Your task to perform on an android device: Open calendar and show me the third week of next month Image 0: 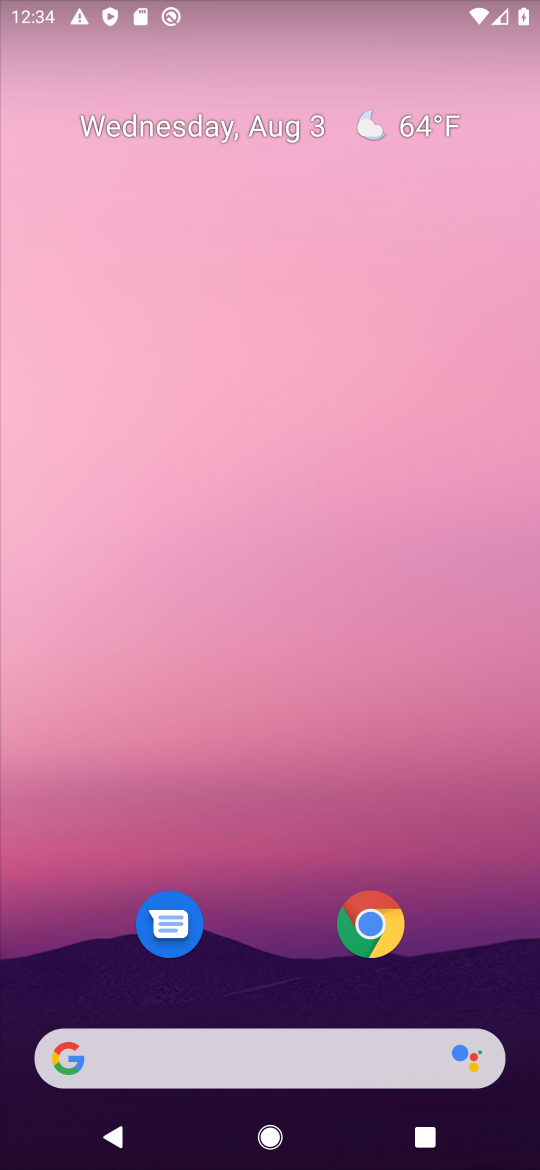
Step 0: drag from (256, 585) to (273, 107)
Your task to perform on an android device: Open calendar and show me the third week of next month Image 1: 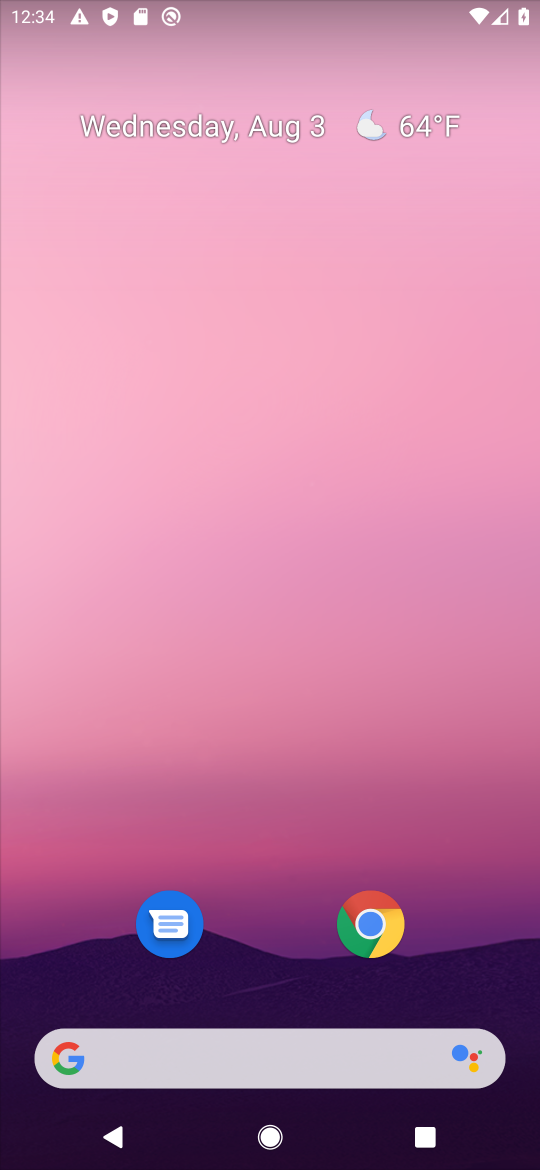
Step 1: drag from (336, 904) to (398, 14)
Your task to perform on an android device: Open calendar and show me the third week of next month Image 2: 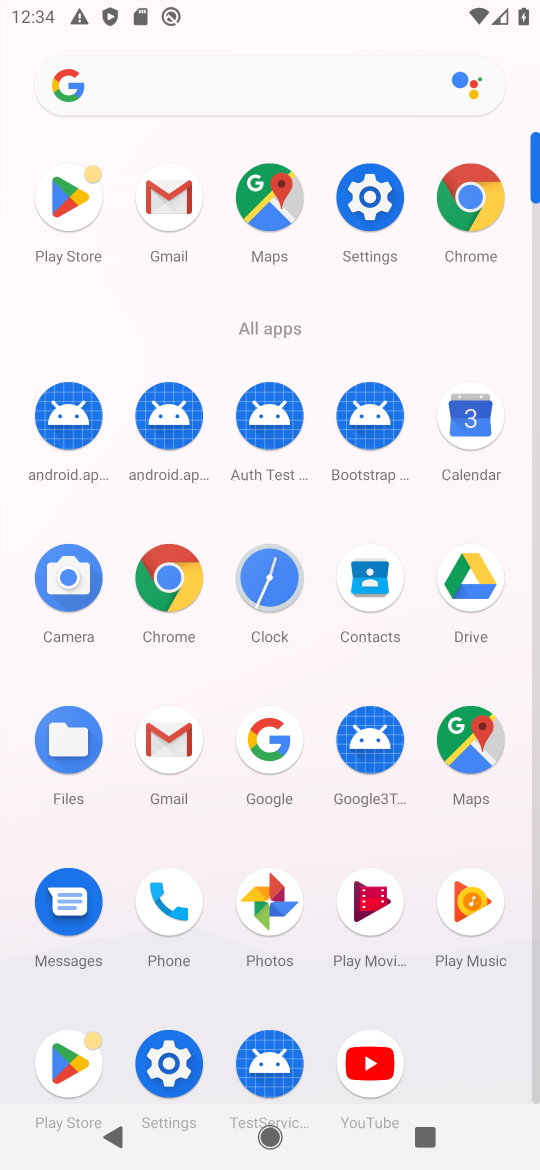
Step 2: click (476, 439)
Your task to perform on an android device: Open calendar and show me the third week of next month Image 3: 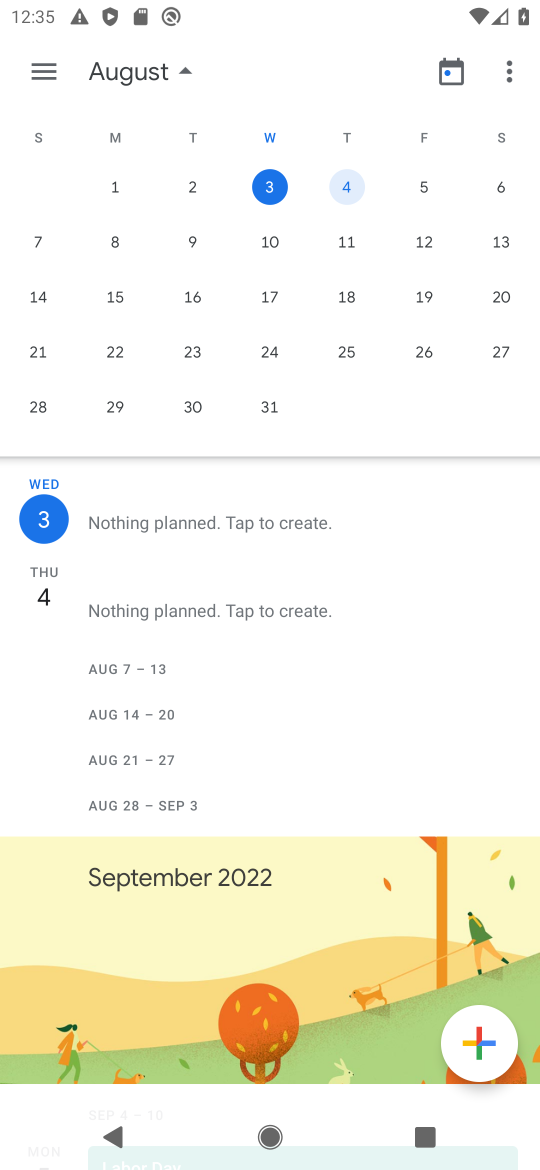
Step 3: click (35, 82)
Your task to perform on an android device: Open calendar and show me the third week of next month Image 4: 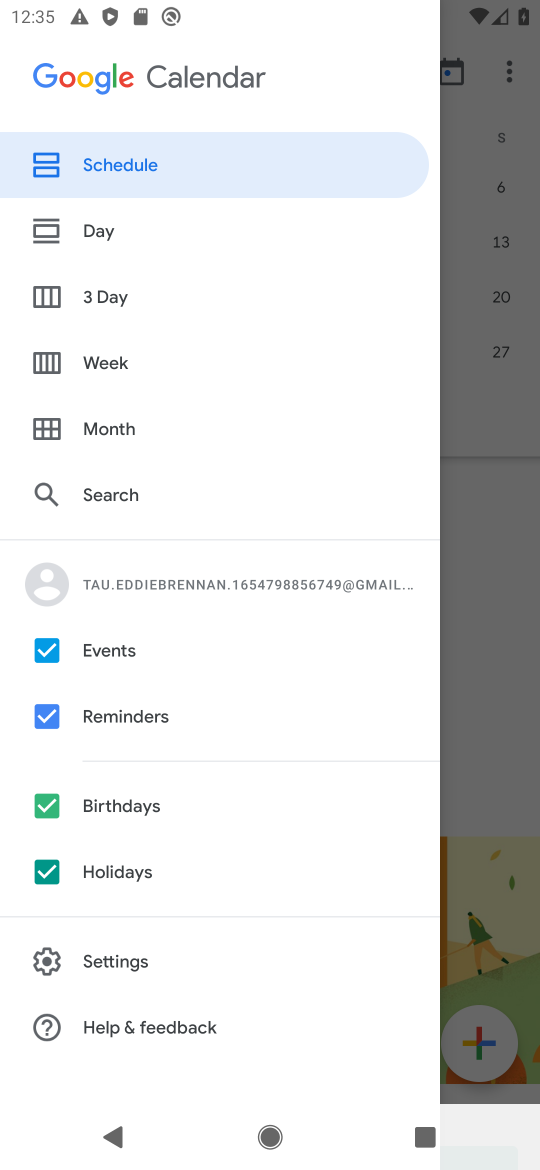
Step 4: click (479, 257)
Your task to perform on an android device: Open calendar and show me the third week of next month Image 5: 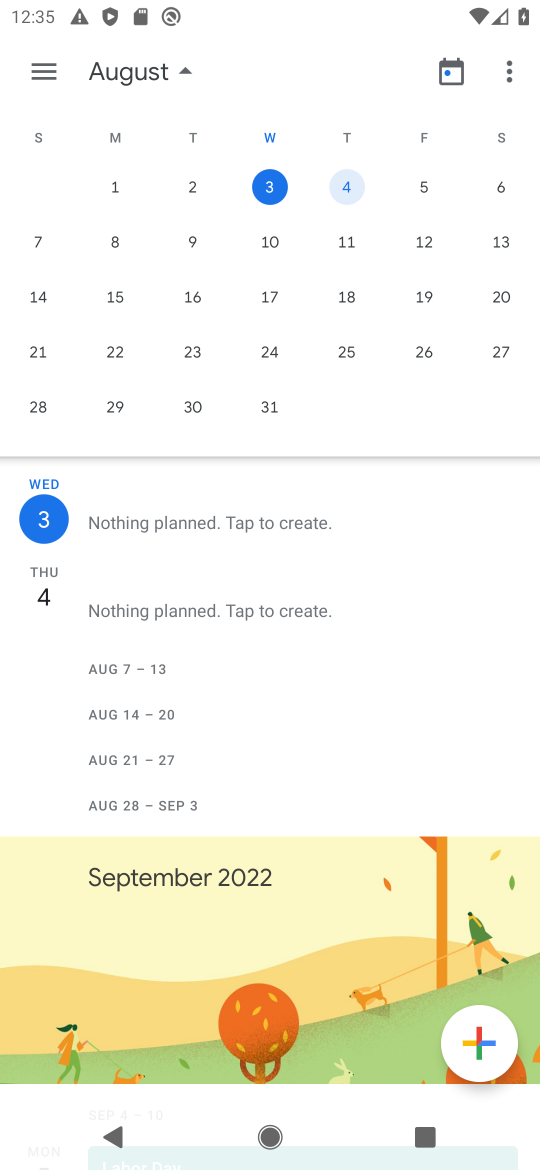
Step 5: drag from (493, 254) to (46, 247)
Your task to perform on an android device: Open calendar and show me the third week of next month Image 6: 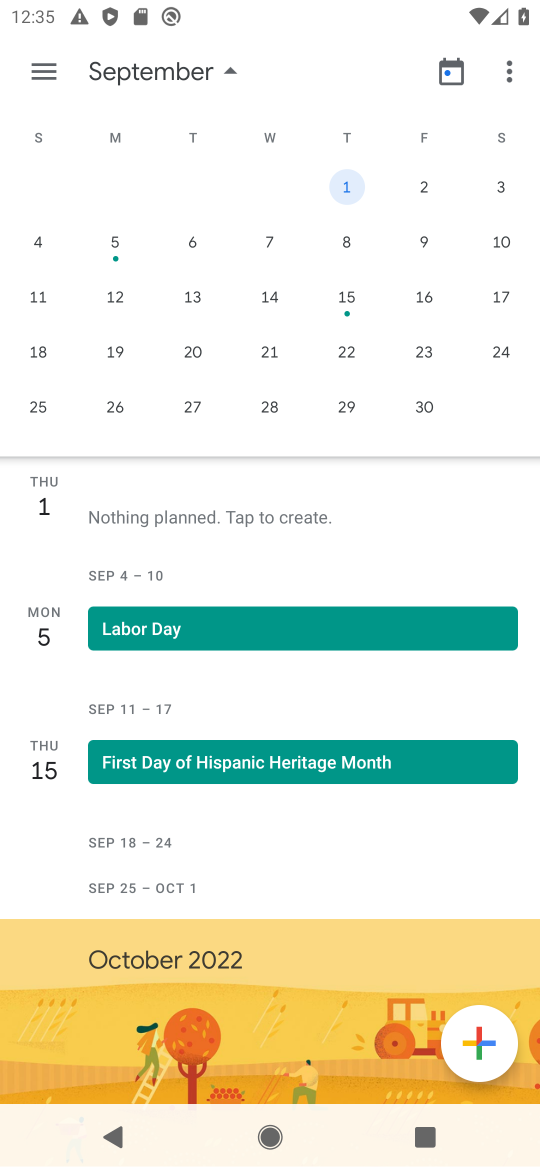
Step 6: click (111, 298)
Your task to perform on an android device: Open calendar and show me the third week of next month Image 7: 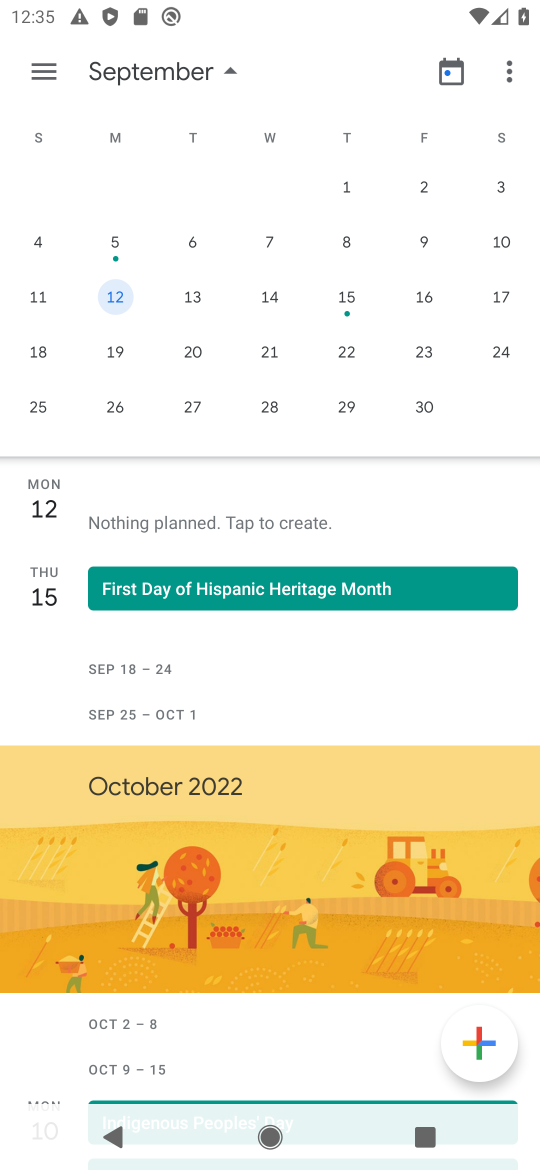
Step 7: task complete